Your task to perform on an android device: Go to Google Image 0: 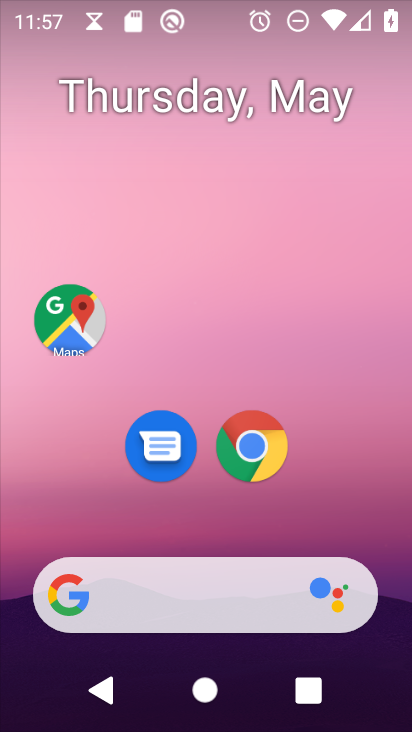
Step 0: drag from (346, 635) to (275, 228)
Your task to perform on an android device: Go to Google Image 1: 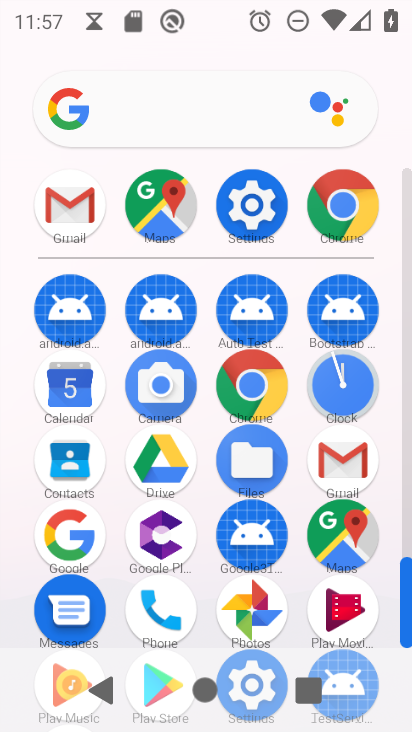
Step 1: click (95, 109)
Your task to perform on an android device: Go to Google Image 2: 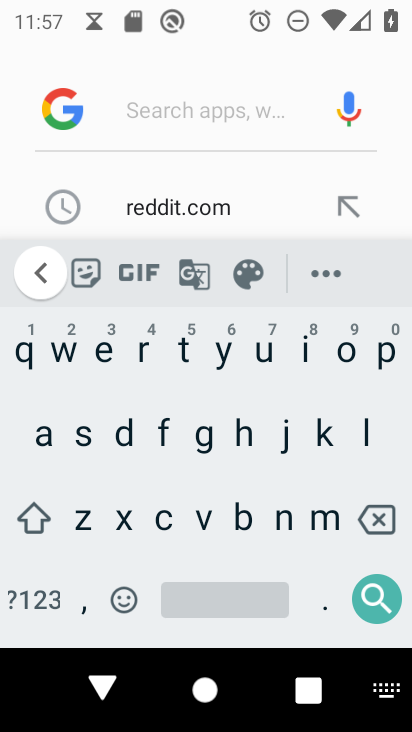
Step 2: click (65, 107)
Your task to perform on an android device: Go to Google Image 3: 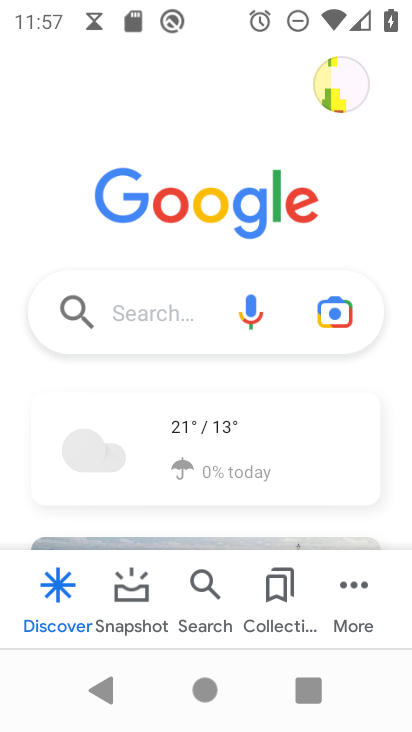
Step 3: task complete